Your task to perform on an android device: Open my contact list Image 0: 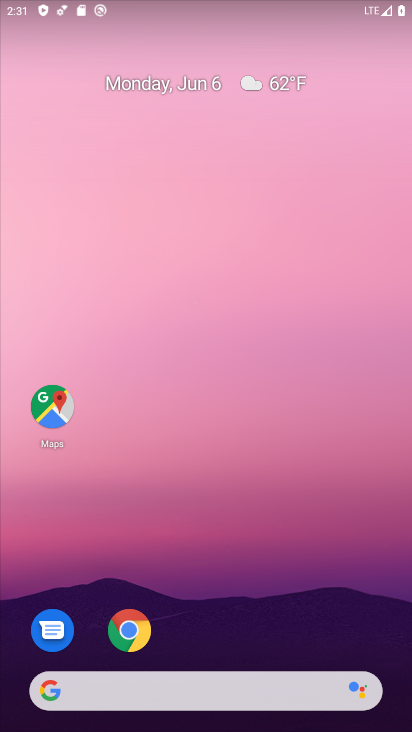
Step 0: drag from (347, 621) to (71, 24)
Your task to perform on an android device: Open my contact list Image 1: 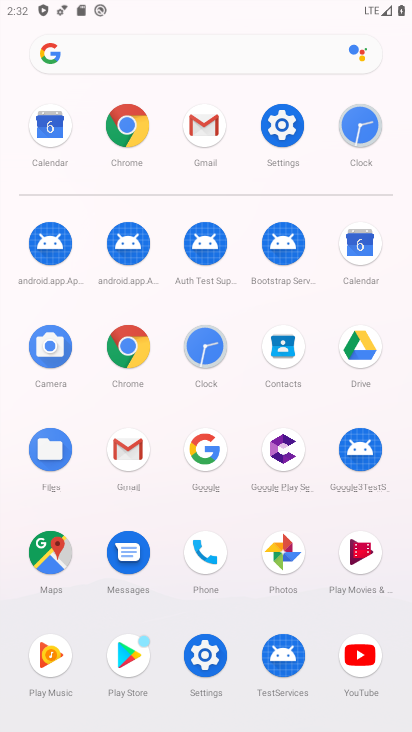
Step 1: click (291, 352)
Your task to perform on an android device: Open my contact list Image 2: 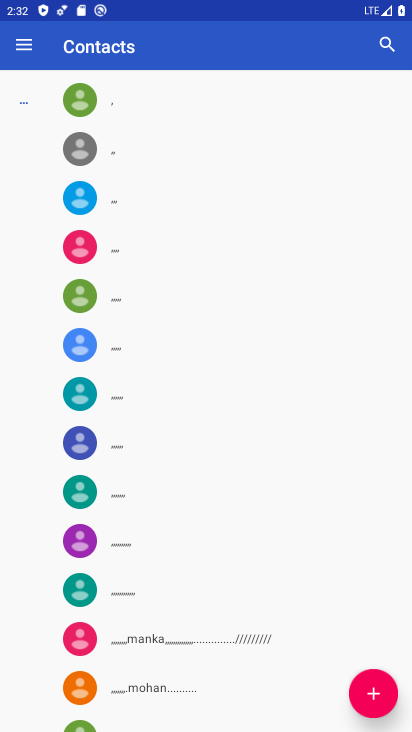
Step 2: drag from (193, 587) to (210, 145)
Your task to perform on an android device: Open my contact list Image 3: 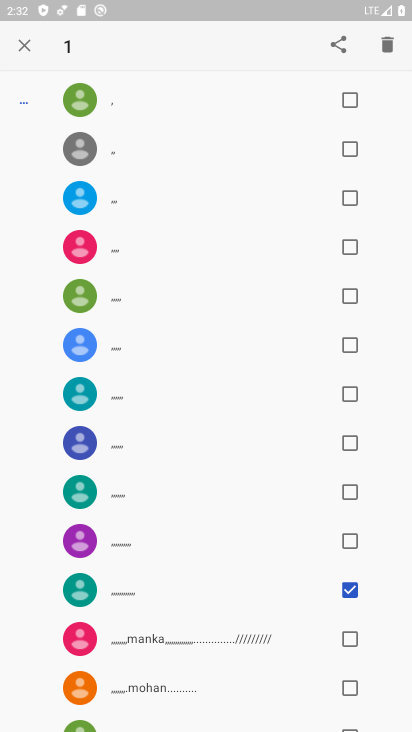
Step 3: click (31, 45)
Your task to perform on an android device: Open my contact list Image 4: 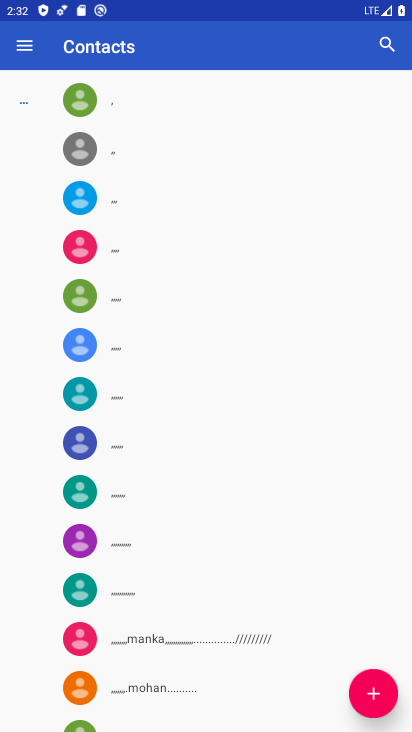
Step 4: task complete